Your task to perform on an android device: turn off notifications settings in the gmail app Image 0: 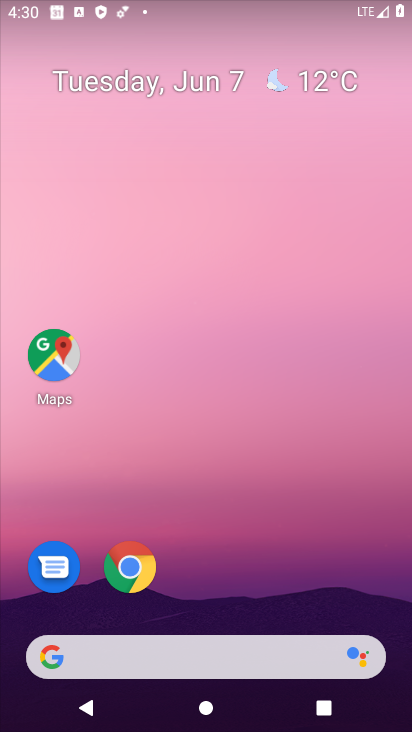
Step 0: drag from (322, 665) to (346, 176)
Your task to perform on an android device: turn off notifications settings in the gmail app Image 1: 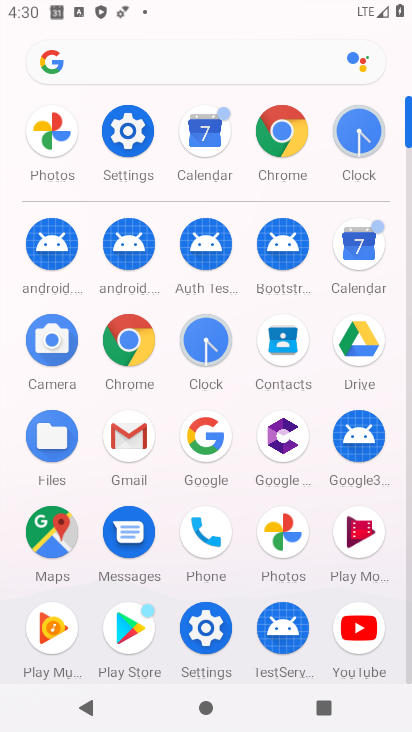
Step 1: click (135, 440)
Your task to perform on an android device: turn off notifications settings in the gmail app Image 2: 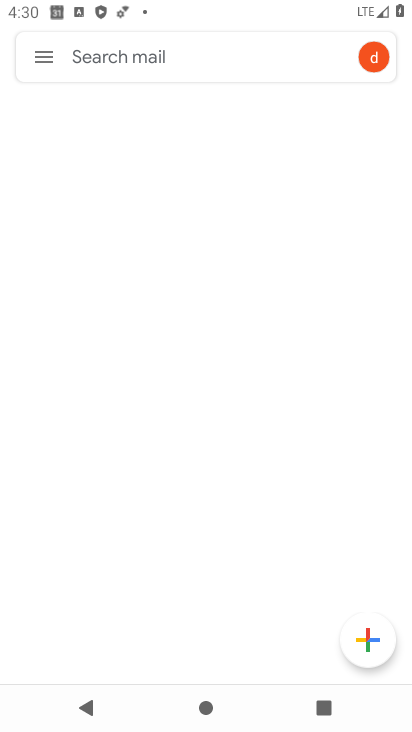
Step 2: click (42, 51)
Your task to perform on an android device: turn off notifications settings in the gmail app Image 3: 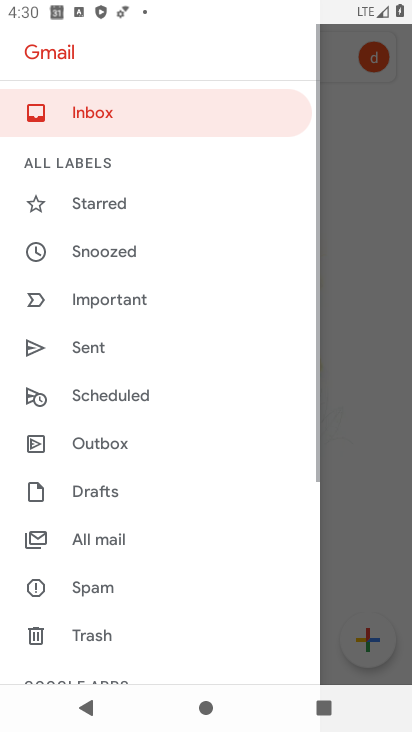
Step 3: drag from (133, 593) to (140, 111)
Your task to perform on an android device: turn off notifications settings in the gmail app Image 4: 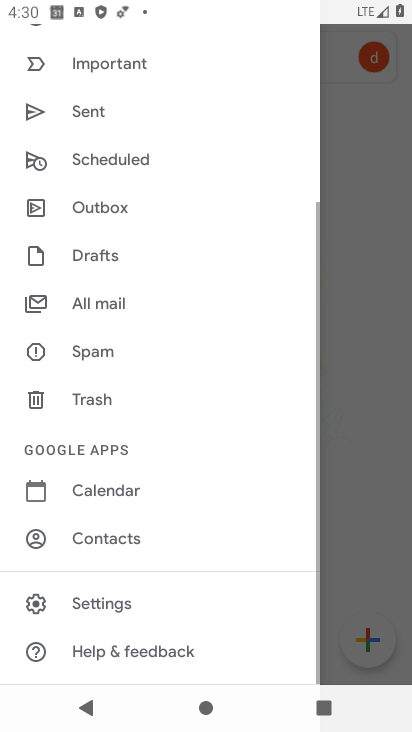
Step 4: click (105, 602)
Your task to perform on an android device: turn off notifications settings in the gmail app Image 5: 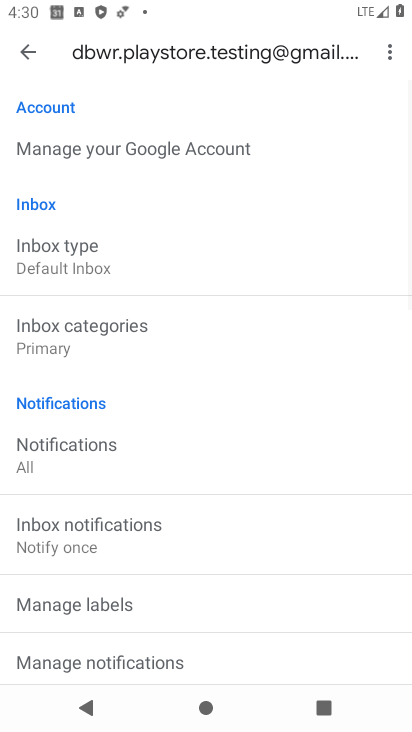
Step 5: drag from (141, 602) to (178, 270)
Your task to perform on an android device: turn off notifications settings in the gmail app Image 6: 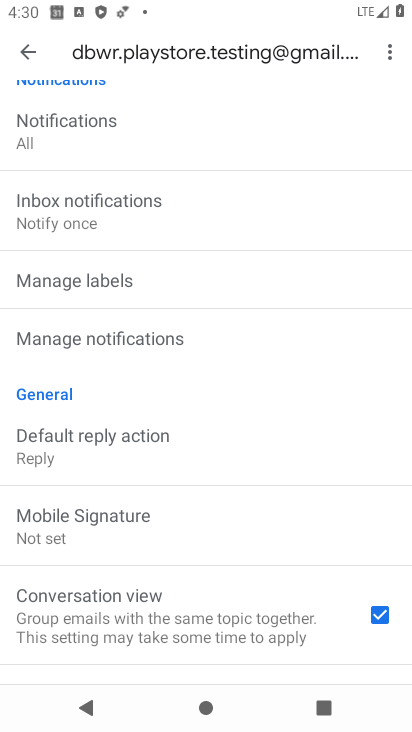
Step 6: click (159, 332)
Your task to perform on an android device: turn off notifications settings in the gmail app Image 7: 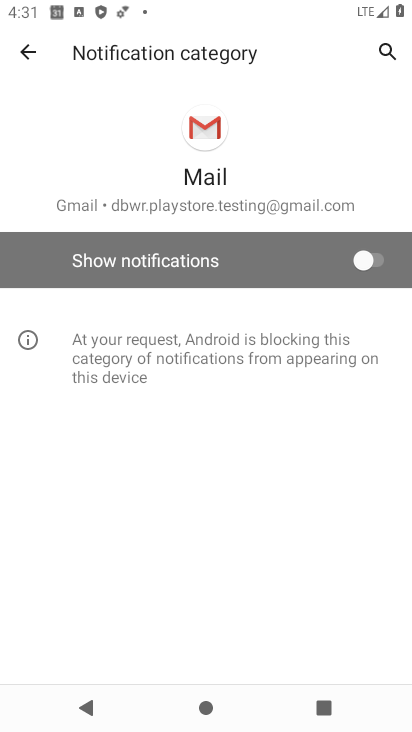
Step 7: task complete